Your task to perform on an android device: toggle translation in the chrome app Image 0: 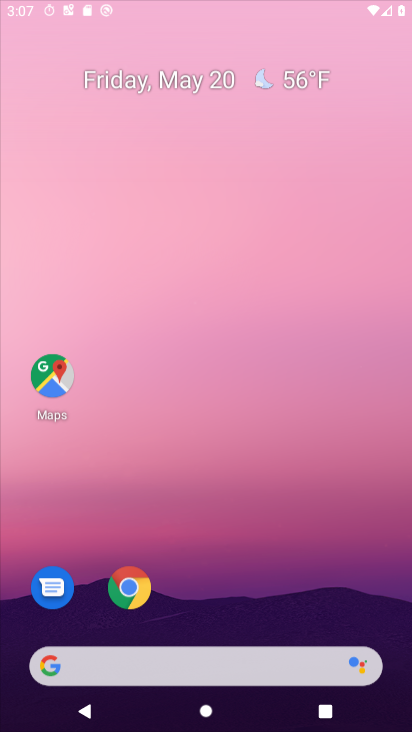
Step 0: press home button
Your task to perform on an android device: toggle translation in the chrome app Image 1: 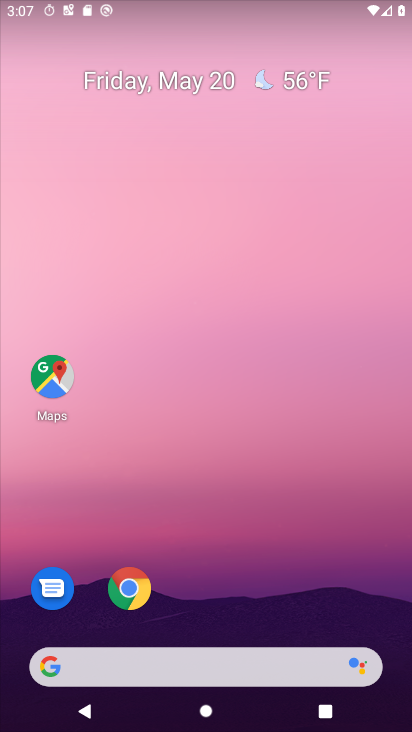
Step 1: drag from (6, 689) to (179, 217)
Your task to perform on an android device: toggle translation in the chrome app Image 2: 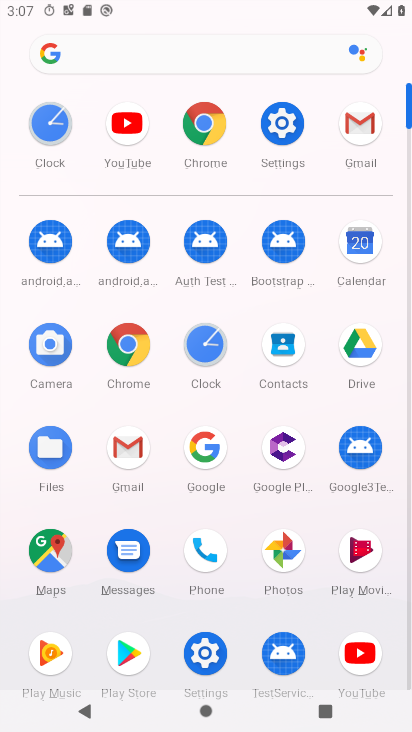
Step 2: click (145, 345)
Your task to perform on an android device: toggle translation in the chrome app Image 3: 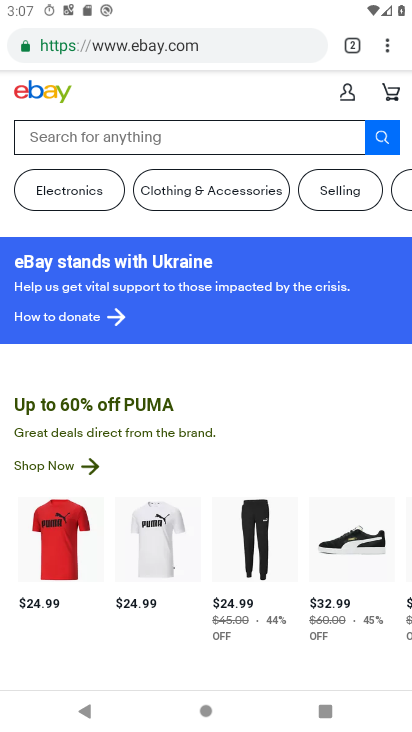
Step 3: click (380, 49)
Your task to perform on an android device: toggle translation in the chrome app Image 4: 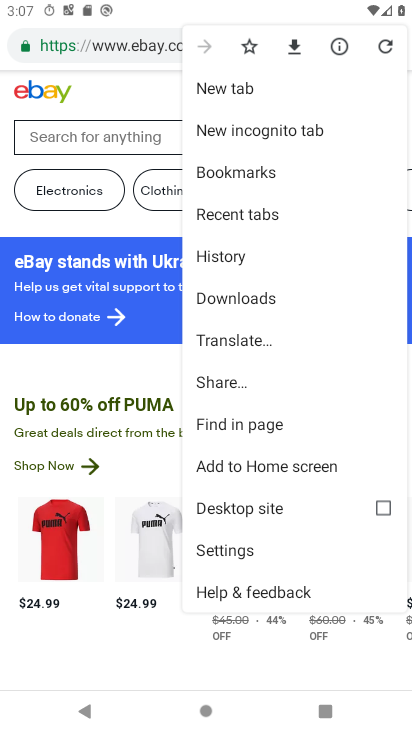
Step 4: click (254, 554)
Your task to perform on an android device: toggle translation in the chrome app Image 5: 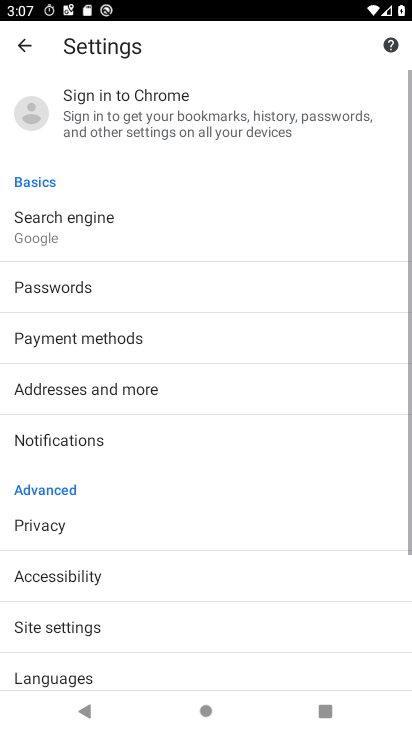
Step 5: drag from (8, 645) to (132, 291)
Your task to perform on an android device: toggle translation in the chrome app Image 6: 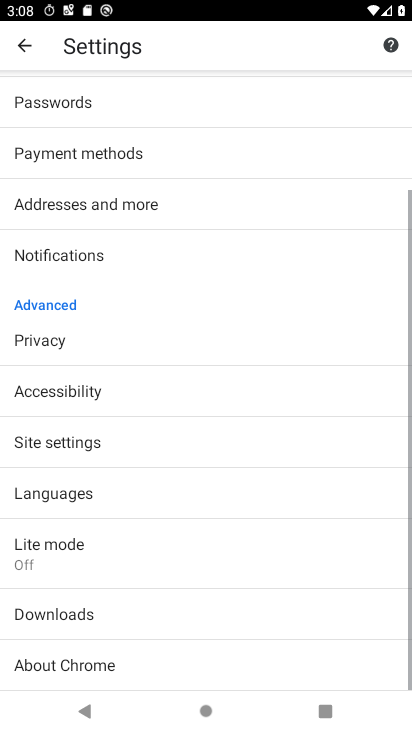
Step 6: click (72, 475)
Your task to perform on an android device: toggle translation in the chrome app Image 7: 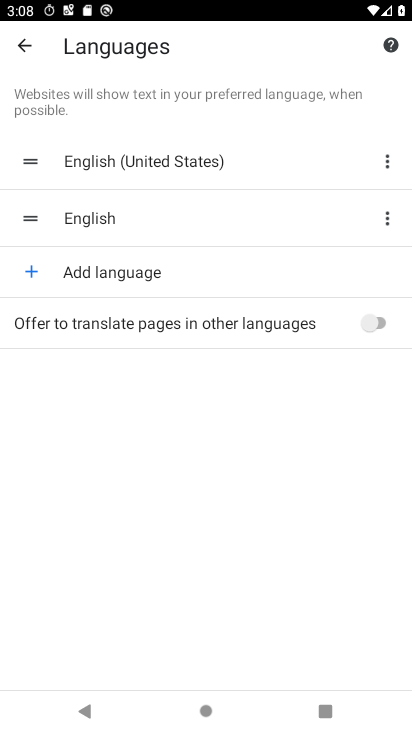
Step 7: click (368, 327)
Your task to perform on an android device: toggle translation in the chrome app Image 8: 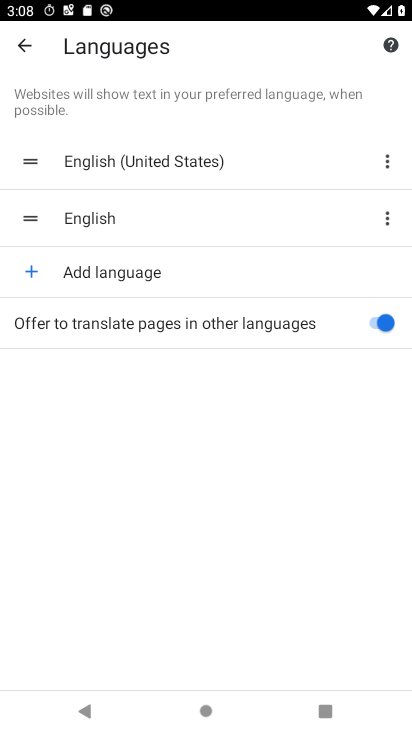
Step 8: task complete